Your task to perform on an android device: Is it going to rain today? Image 0: 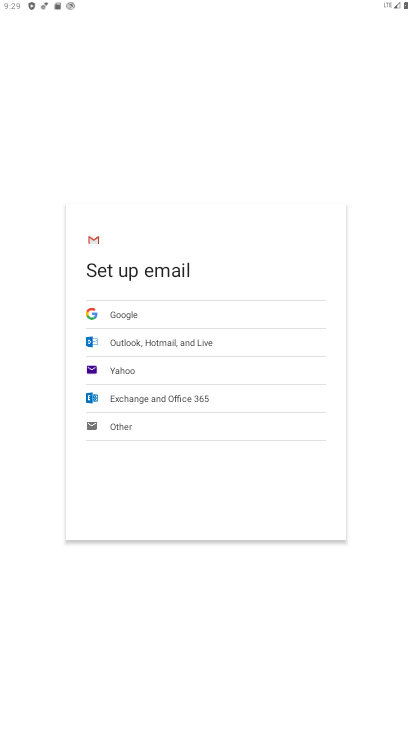
Step 0: drag from (224, 595) to (206, 258)
Your task to perform on an android device: Is it going to rain today? Image 1: 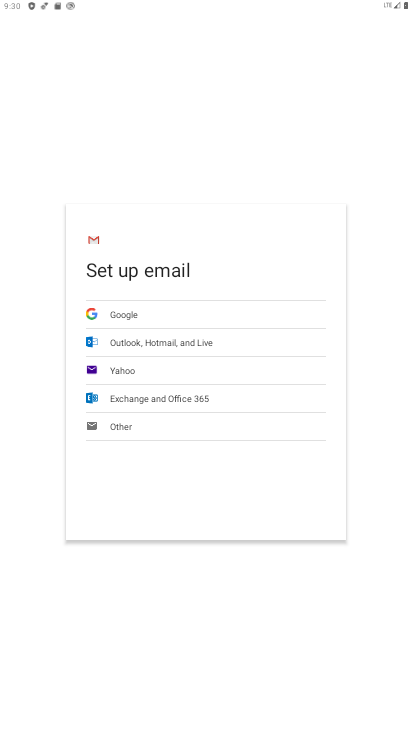
Step 1: press home button
Your task to perform on an android device: Is it going to rain today? Image 2: 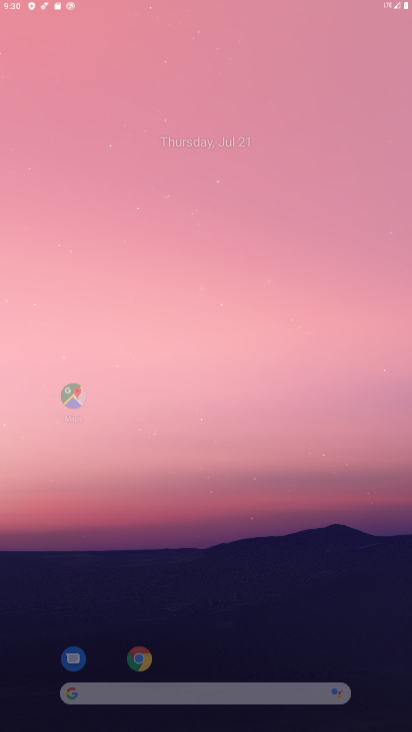
Step 2: drag from (195, 607) to (214, 117)
Your task to perform on an android device: Is it going to rain today? Image 3: 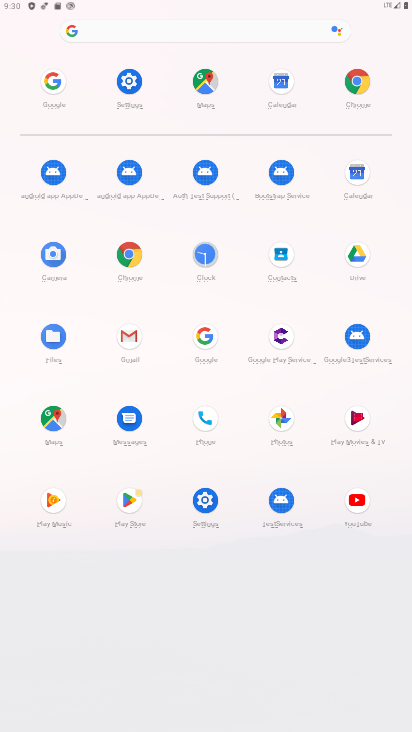
Step 3: click (235, 41)
Your task to perform on an android device: Is it going to rain today? Image 4: 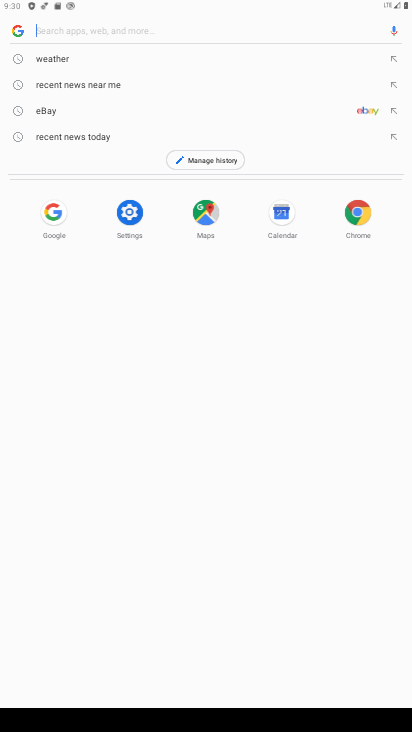
Step 4: type "Is it going to rain today?"
Your task to perform on an android device: Is it going to rain today? Image 5: 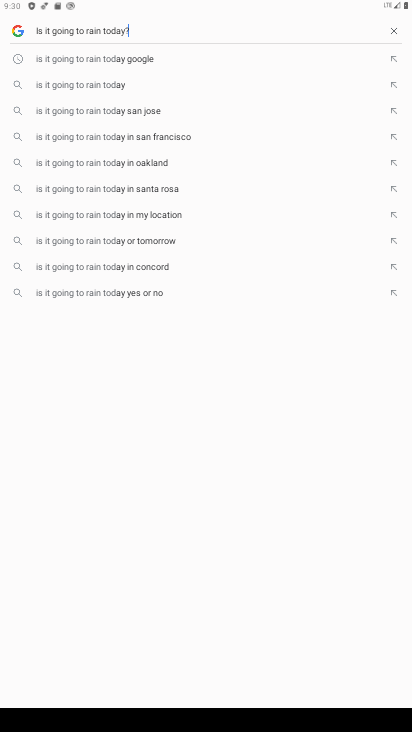
Step 5: type ""
Your task to perform on an android device: Is it going to rain today? Image 6: 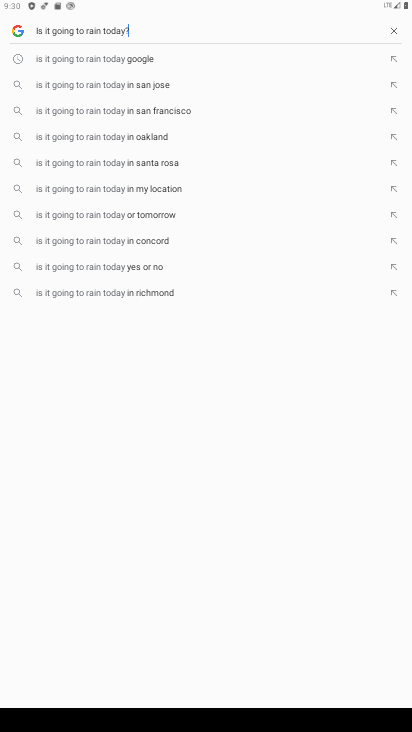
Step 6: click (77, 62)
Your task to perform on an android device: Is it going to rain today? Image 7: 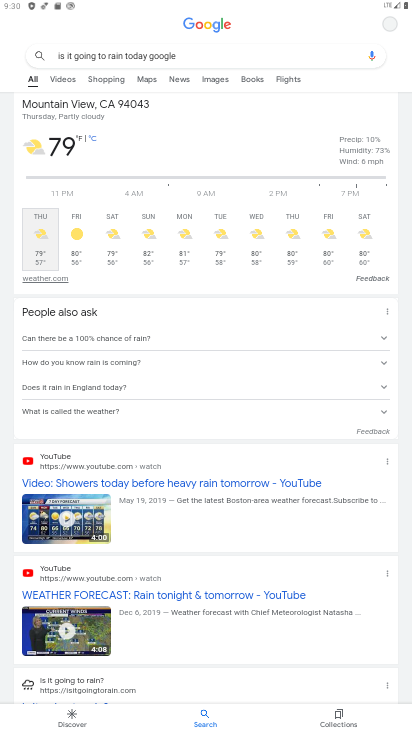
Step 7: task complete